Your task to perform on an android device: change notification settings in the gmail app Image 0: 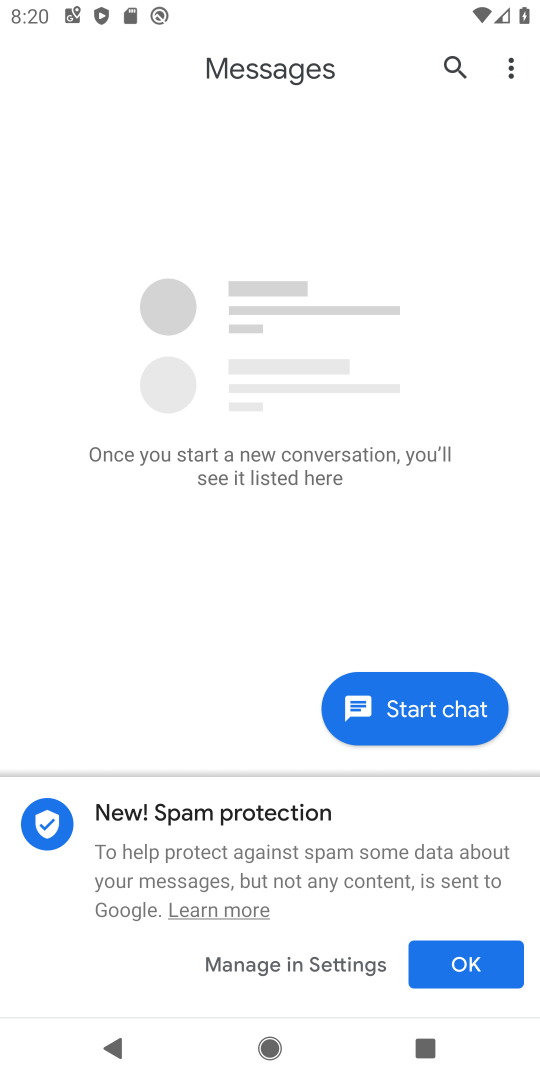
Step 0: press home button
Your task to perform on an android device: change notification settings in the gmail app Image 1: 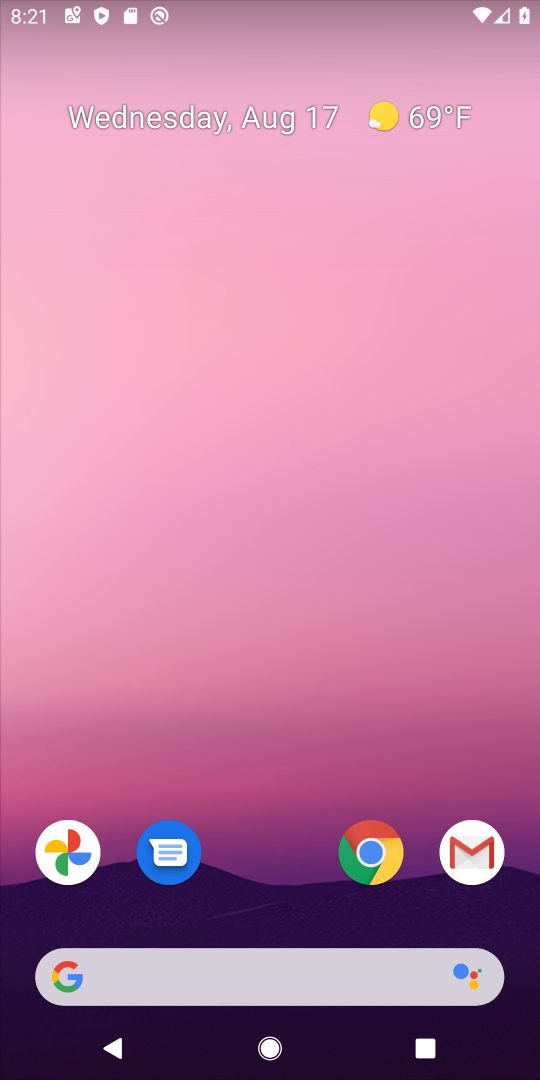
Step 1: click (476, 855)
Your task to perform on an android device: change notification settings in the gmail app Image 2: 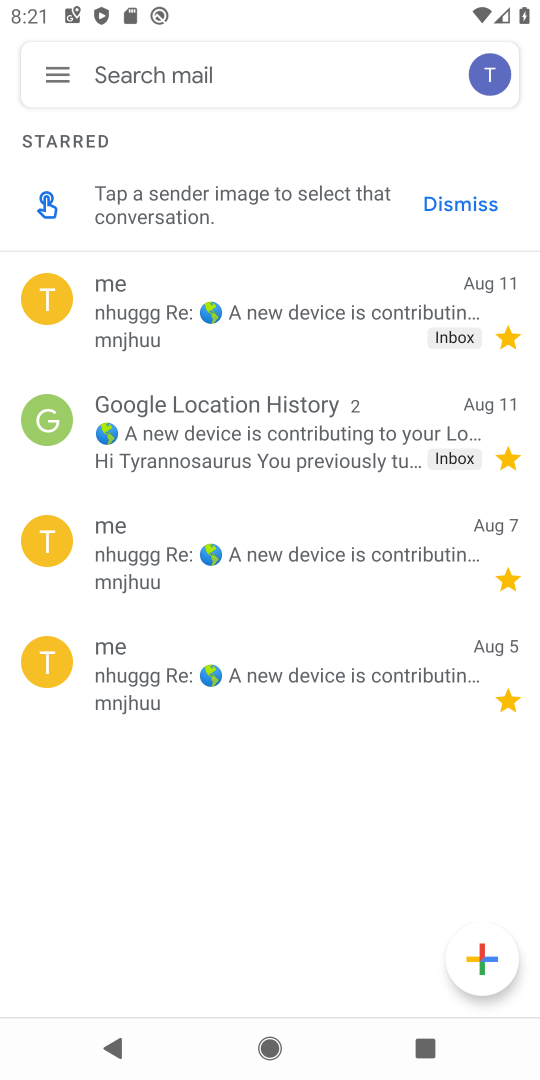
Step 2: click (54, 74)
Your task to perform on an android device: change notification settings in the gmail app Image 3: 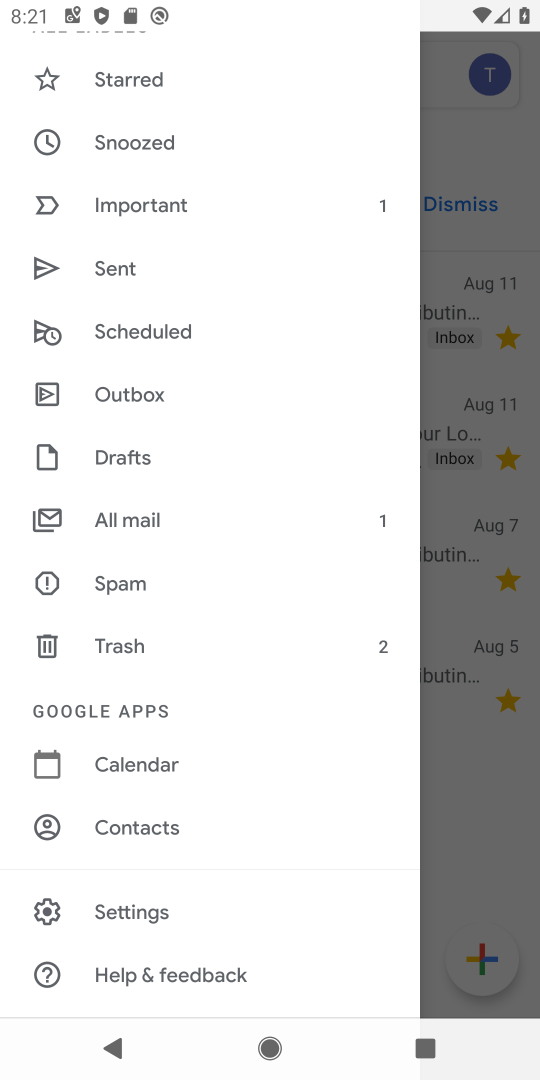
Step 3: click (145, 909)
Your task to perform on an android device: change notification settings in the gmail app Image 4: 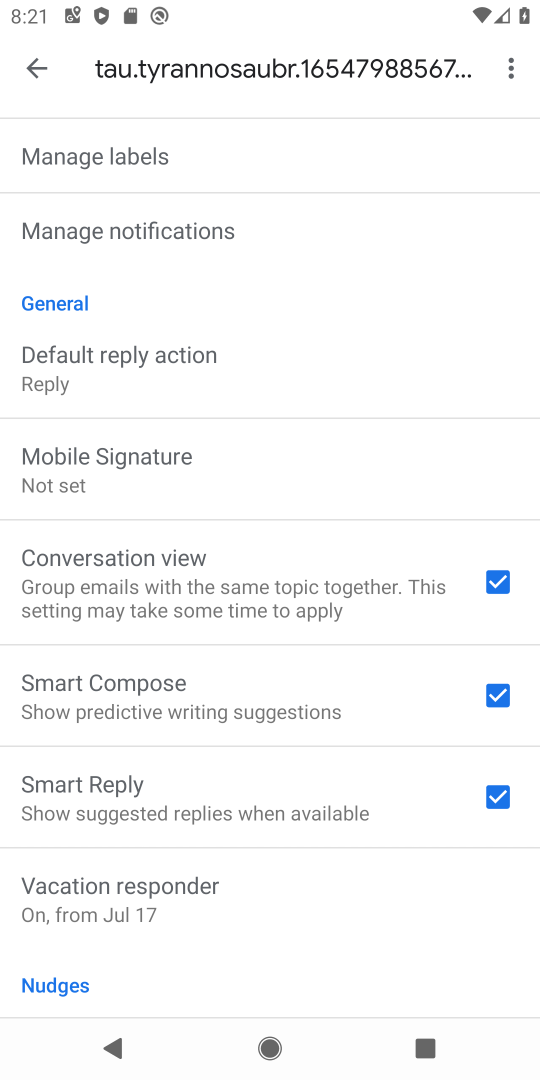
Step 4: click (49, 63)
Your task to perform on an android device: change notification settings in the gmail app Image 5: 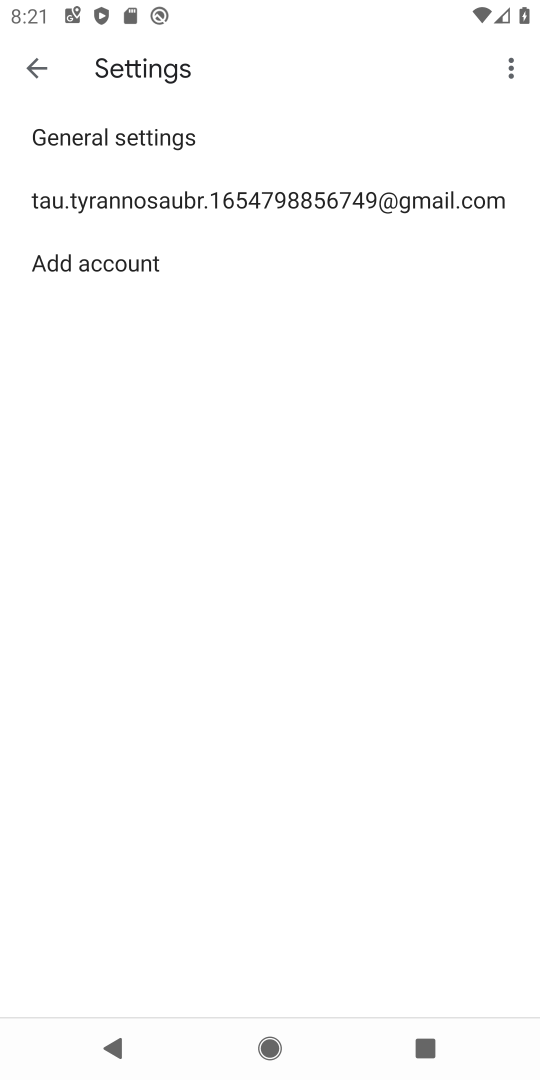
Step 5: click (137, 133)
Your task to perform on an android device: change notification settings in the gmail app Image 6: 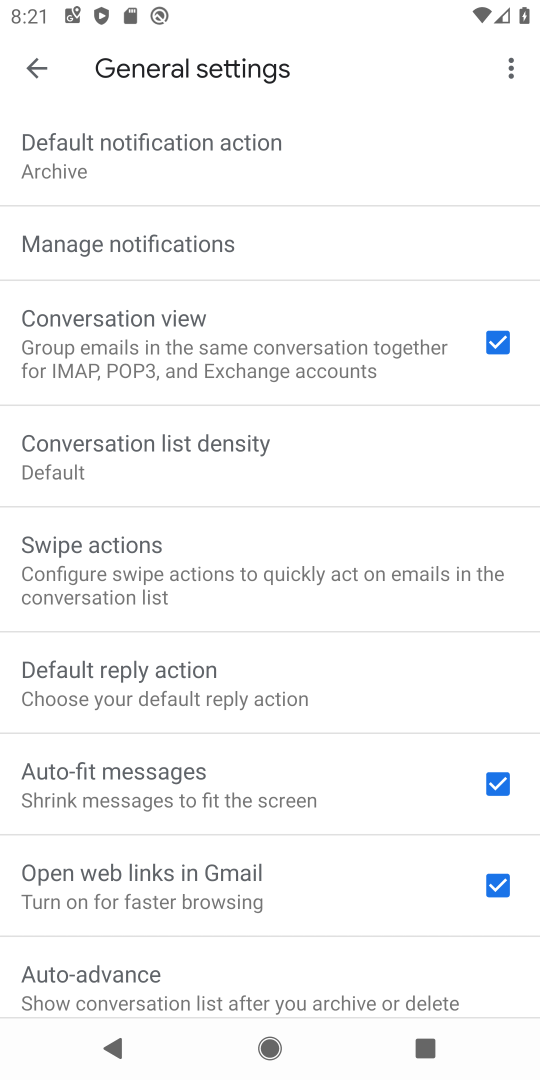
Step 6: click (146, 241)
Your task to perform on an android device: change notification settings in the gmail app Image 7: 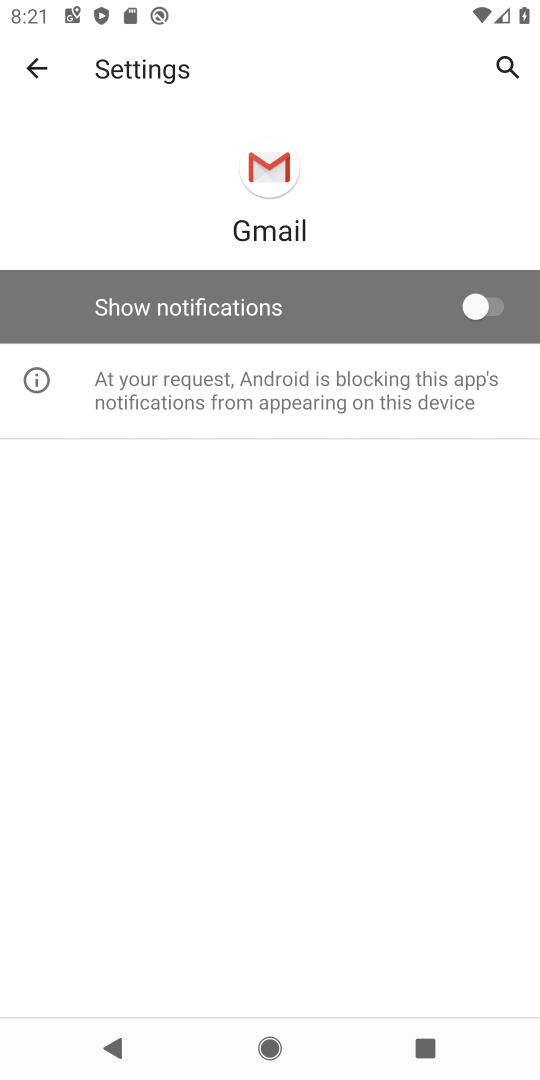
Step 7: click (467, 306)
Your task to perform on an android device: change notification settings in the gmail app Image 8: 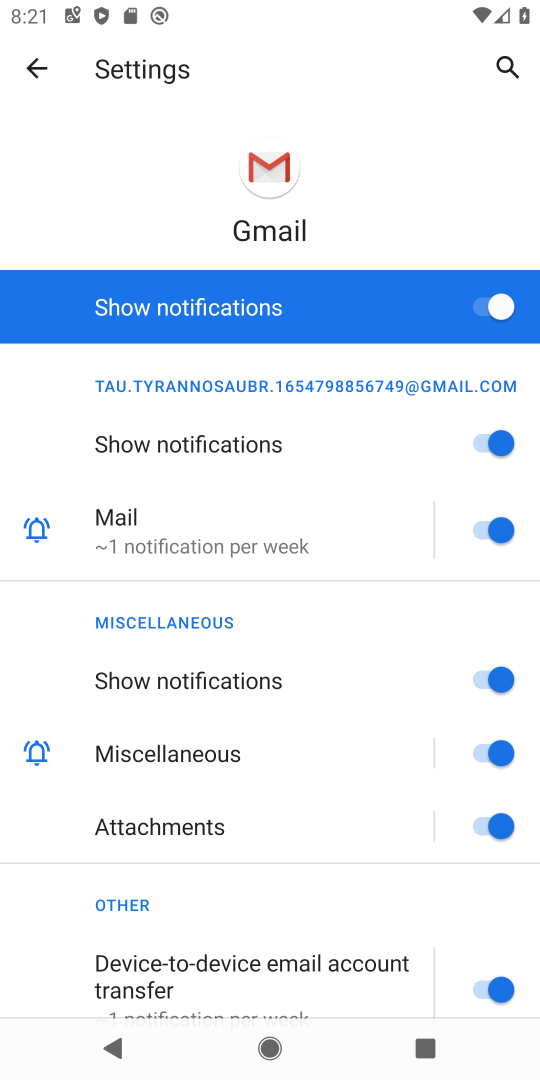
Step 8: task complete